Your task to perform on an android device: snooze an email in the gmail app Image 0: 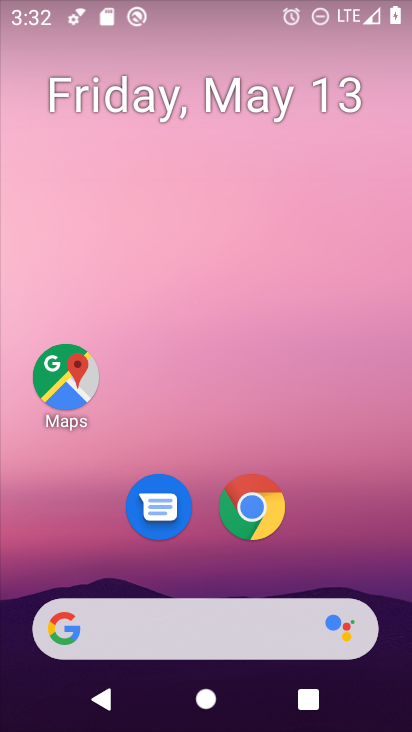
Step 0: drag from (359, 451) to (359, 193)
Your task to perform on an android device: snooze an email in the gmail app Image 1: 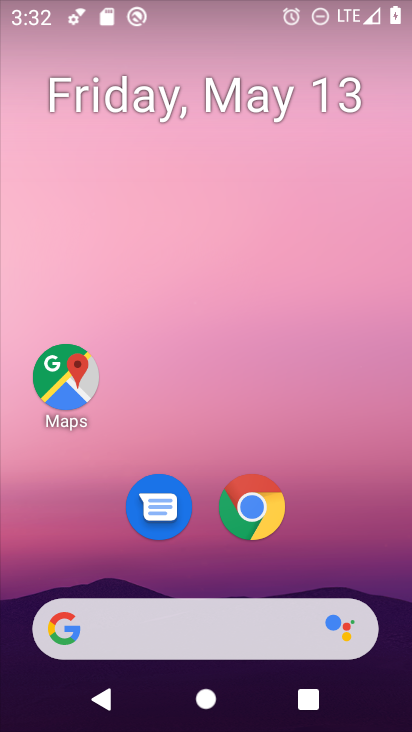
Step 1: drag from (369, 548) to (370, 95)
Your task to perform on an android device: snooze an email in the gmail app Image 2: 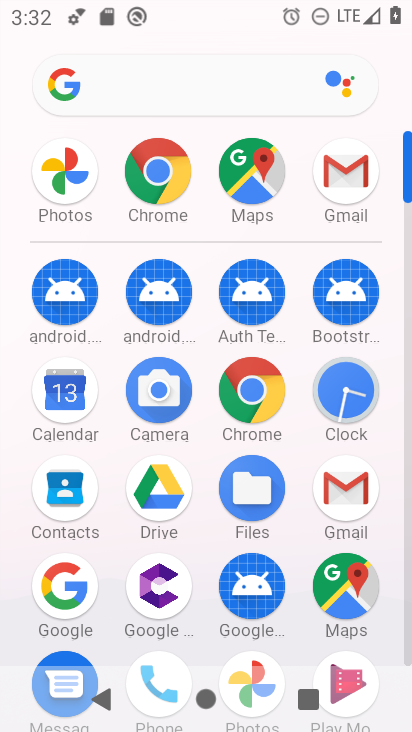
Step 2: click (340, 176)
Your task to perform on an android device: snooze an email in the gmail app Image 3: 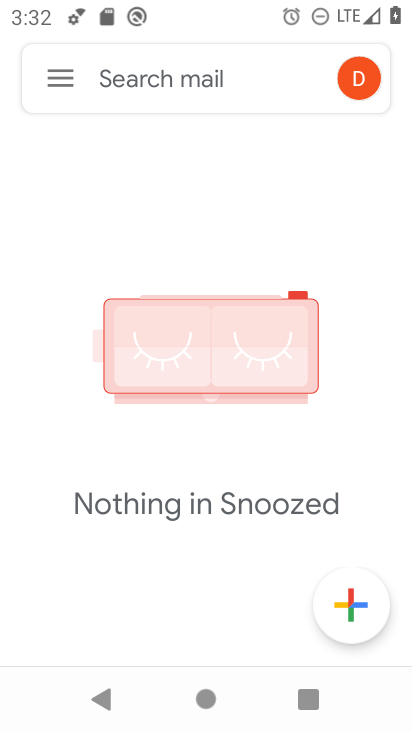
Step 3: click (63, 71)
Your task to perform on an android device: snooze an email in the gmail app Image 4: 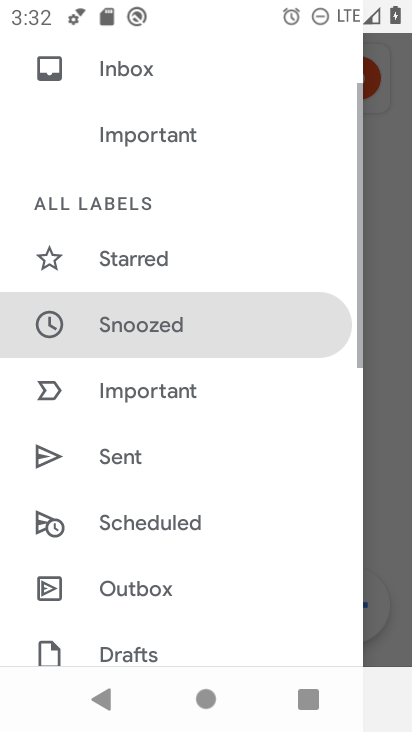
Step 4: click (211, 316)
Your task to perform on an android device: snooze an email in the gmail app Image 5: 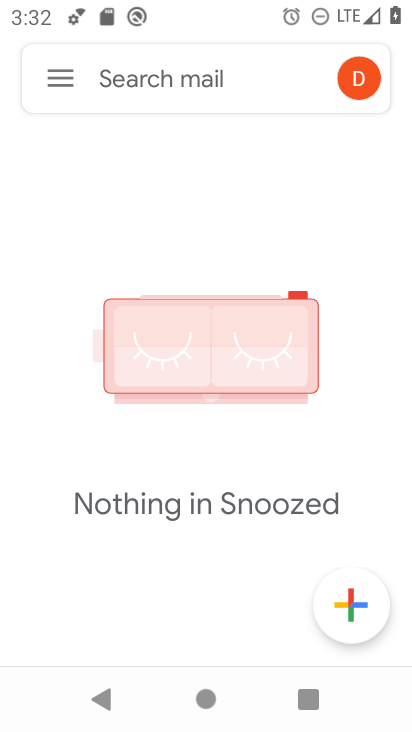
Step 5: task complete